Your task to perform on an android device: turn on airplane mode Image 0: 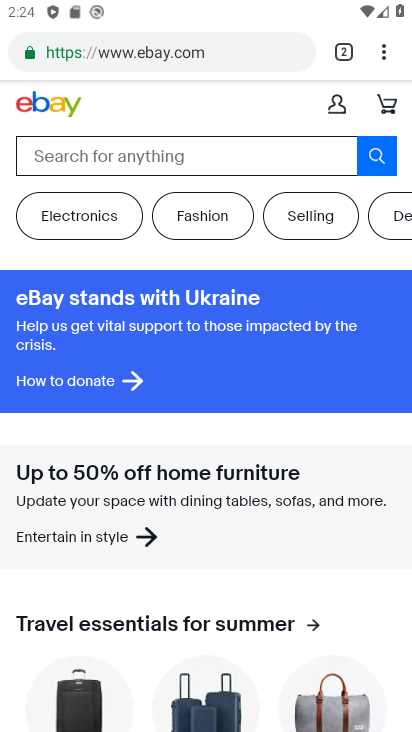
Step 0: press home button
Your task to perform on an android device: turn on airplane mode Image 1: 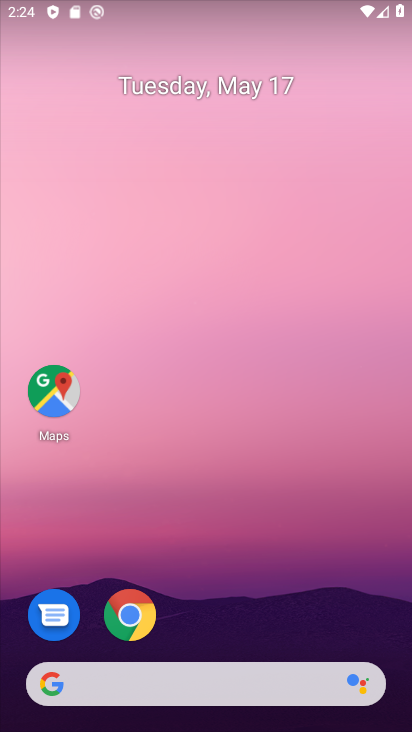
Step 1: drag from (214, 716) to (187, 252)
Your task to perform on an android device: turn on airplane mode Image 2: 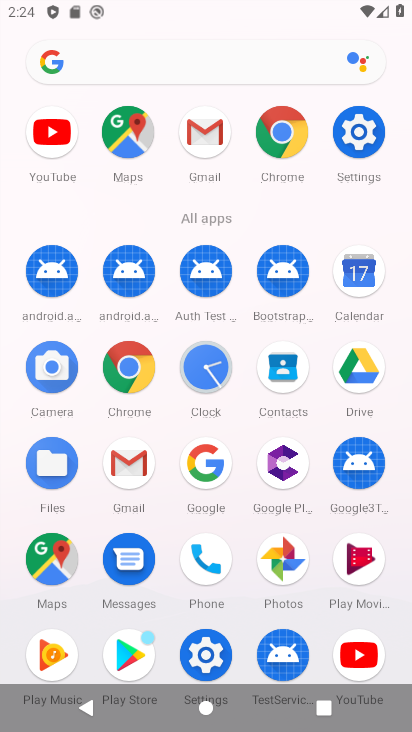
Step 2: click (361, 138)
Your task to perform on an android device: turn on airplane mode Image 3: 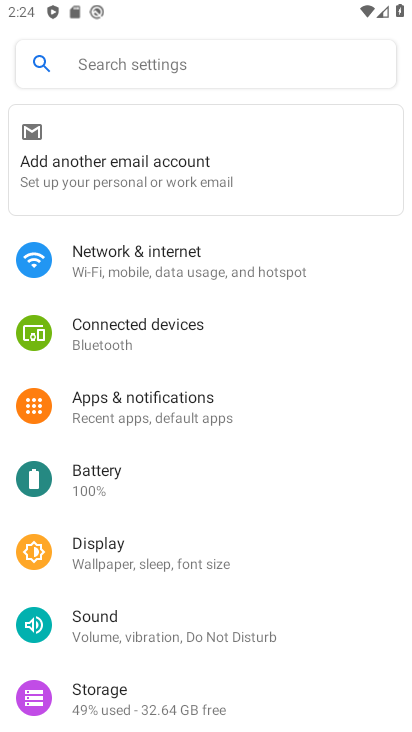
Step 3: click (111, 257)
Your task to perform on an android device: turn on airplane mode Image 4: 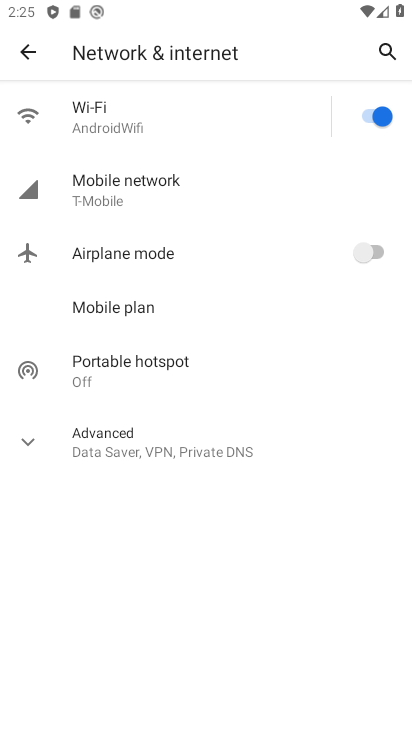
Step 4: click (366, 250)
Your task to perform on an android device: turn on airplane mode Image 5: 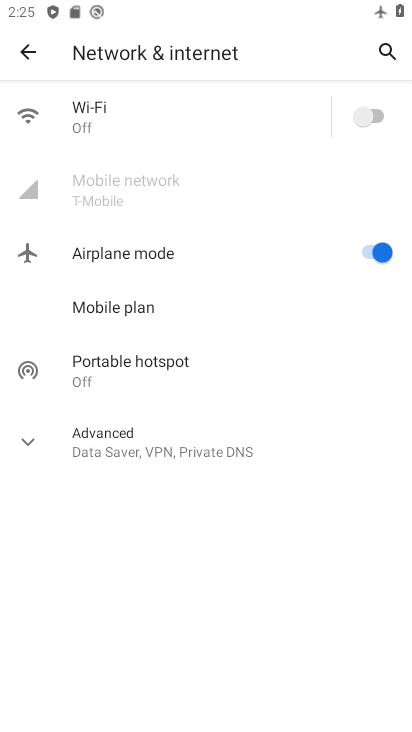
Step 5: task complete